Your task to perform on an android device: Go to wifi settings Image 0: 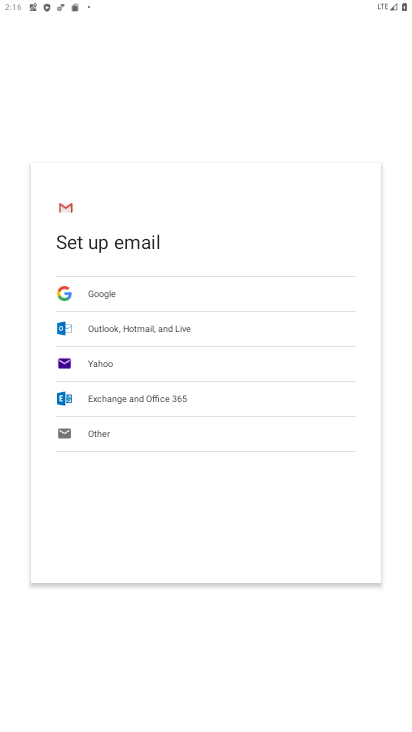
Step 0: press home button
Your task to perform on an android device: Go to wifi settings Image 1: 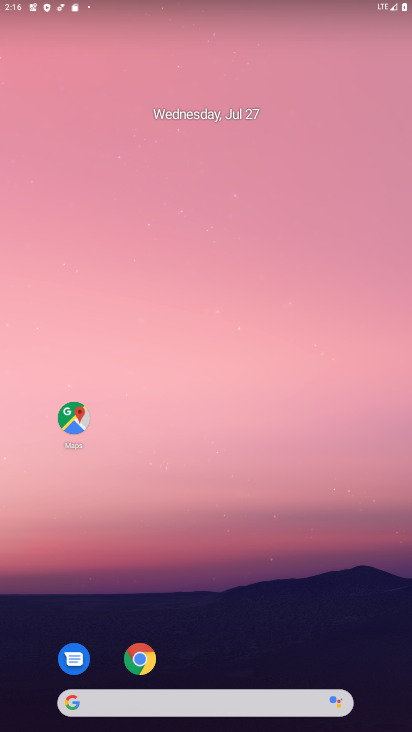
Step 1: drag from (241, 706) to (253, 184)
Your task to perform on an android device: Go to wifi settings Image 2: 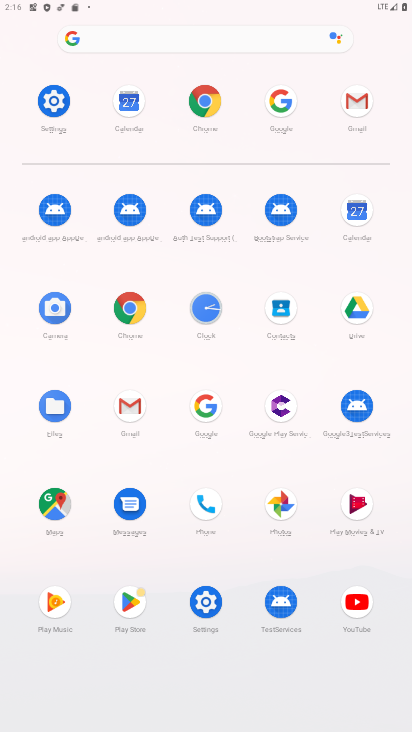
Step 2: click (54, 98)
Your task to perform on an android device: Go to wifi settings Image 3: 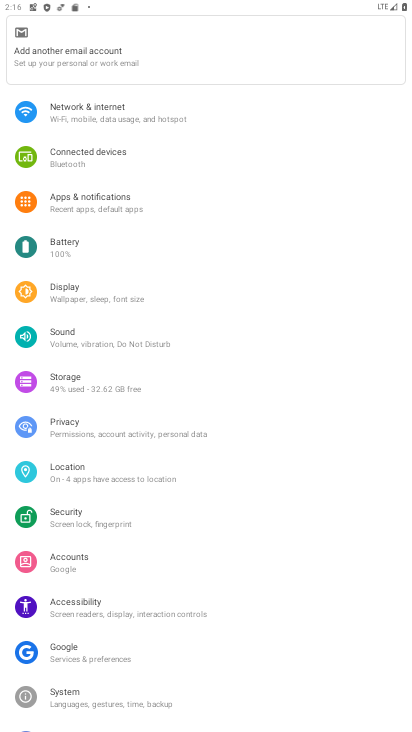
Step 3: click (74, 113)
Your task to perform on an android device: Go to wifi settings Image 4: 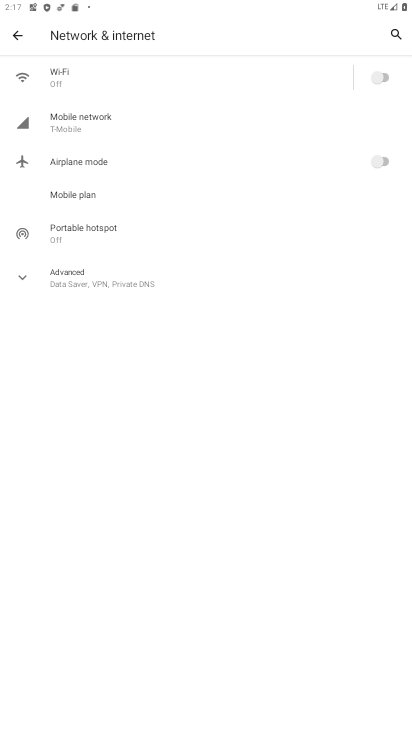
Step 4: click (58, 75)
Your task to perform on an android device: Go to wifi settings Image 5: 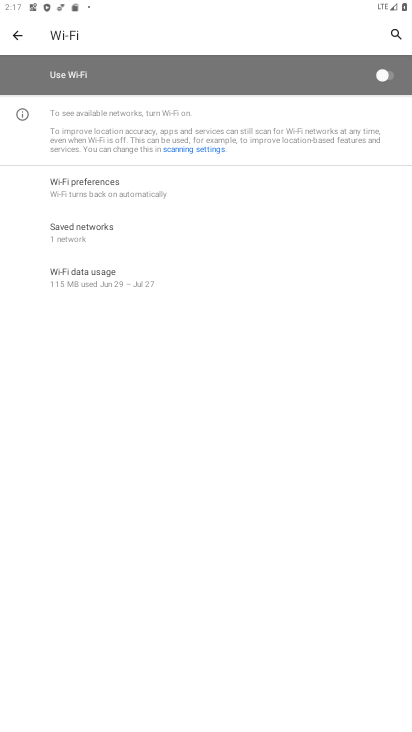
Step 5: task complete